Your task to perform on an android device: remove spam from my inbox in the gmail app Image 0: 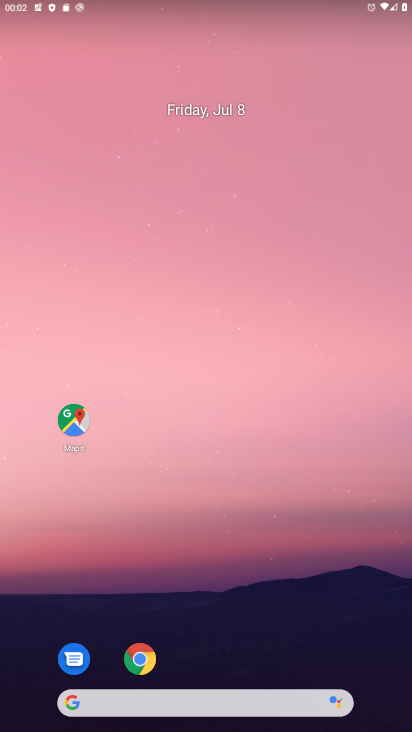
Step 0: drag from (260, 546) to (214, 125)
Your task to perform on an android device: remove spam from my inbox in the gmail app Image 1: 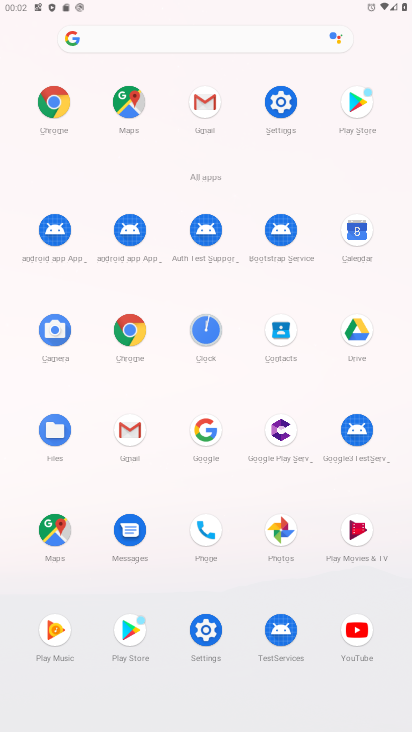
Step 1: click (208, 112)
Your task to perform on an android device: remove spam from my inbox in the gmail app Image 2: 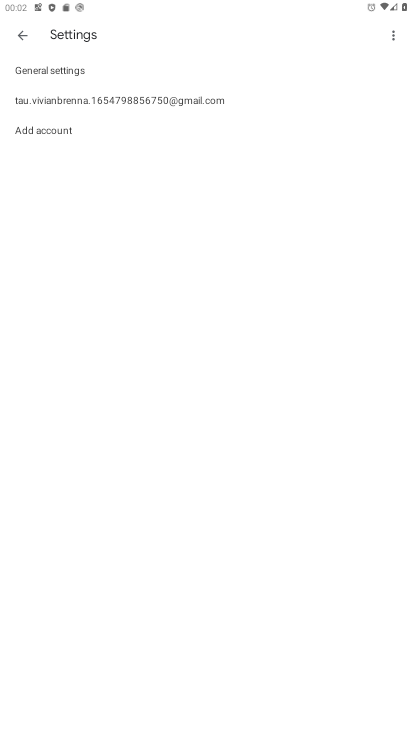
Step 2: click (30, 47)
Your task to perform on an android device: remove spam from my inbox in the gmail app Image 3: 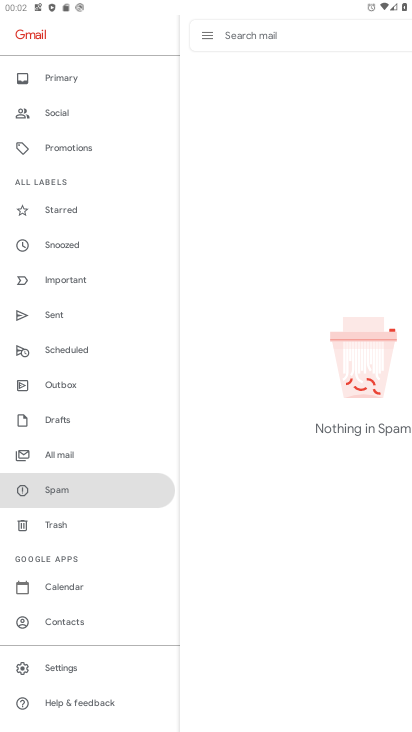
Step 3: task complete